Your task to perform on an android device: Go to Reddit.com Image 0: 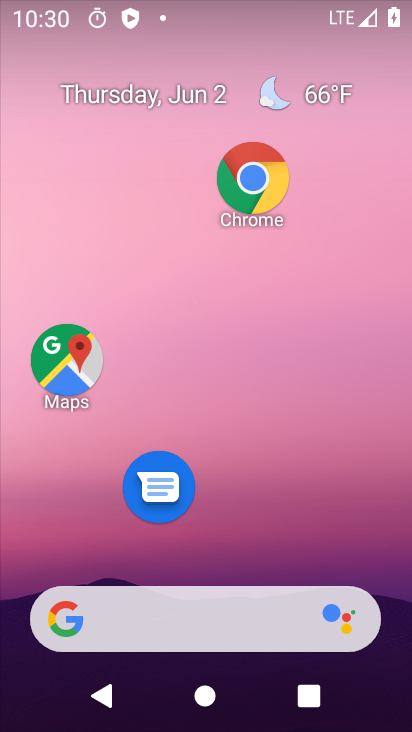
Step 0: click (256, 184)
Your task to perform on an android device: Go to Reddit.com Image 1: 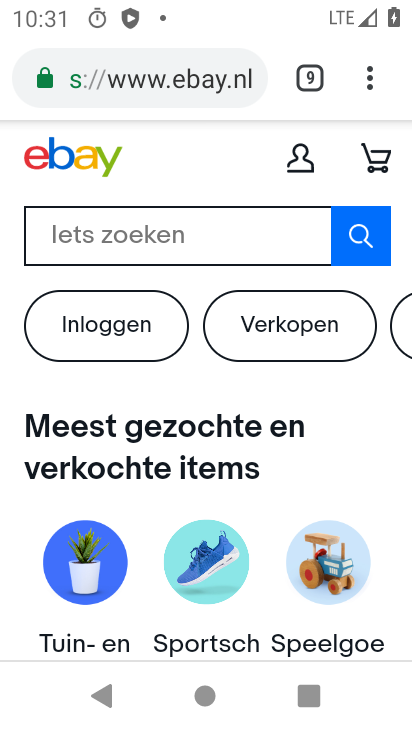
Step 1: click (369, 86)
Your task to perform on an android device: Go to Reddit.com Image 2: 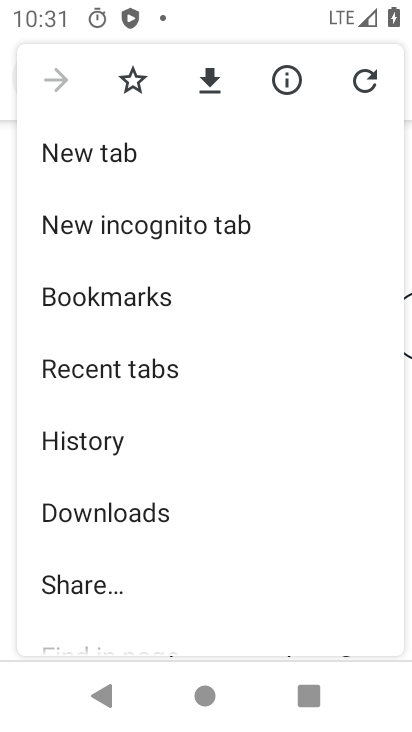
Step 2: click (88, 151)
Your task to perform on an android device: Go to Reddit.com Image 3: 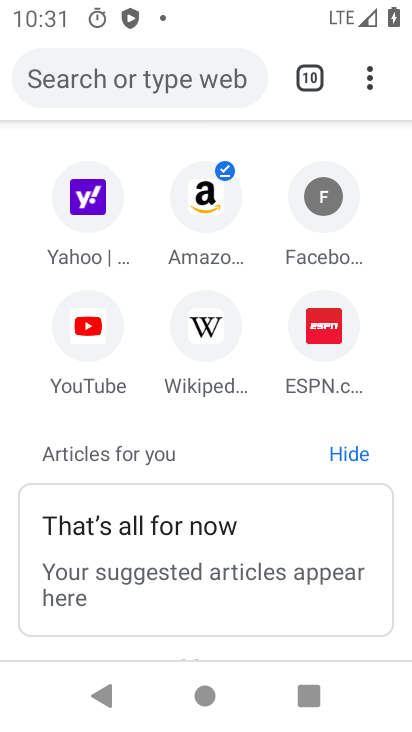
Step 3: click (179, 79)
Your task to perform on an android device: Go to Reddit.com Image 4: 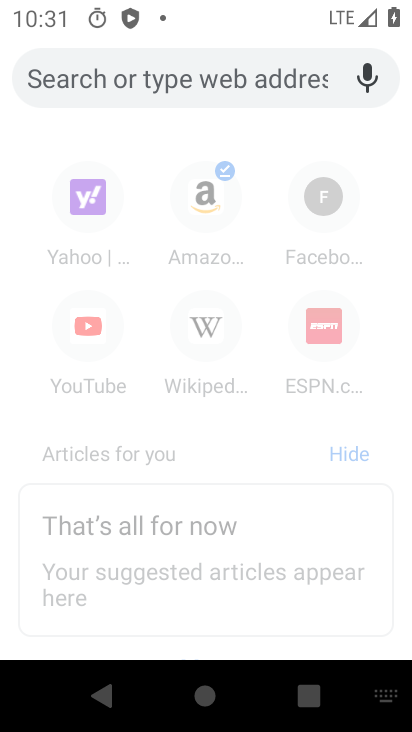
Step 4: type "Reddit.com"
Your task to perform on an android device: Go to Reddit.com Image 5: 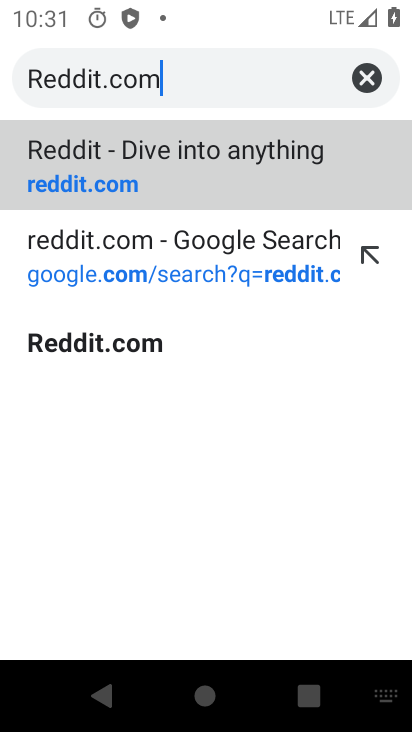
Step 5: click (195, 175)
Your task to perform on an android device: Go to Reddit.com Image 6: 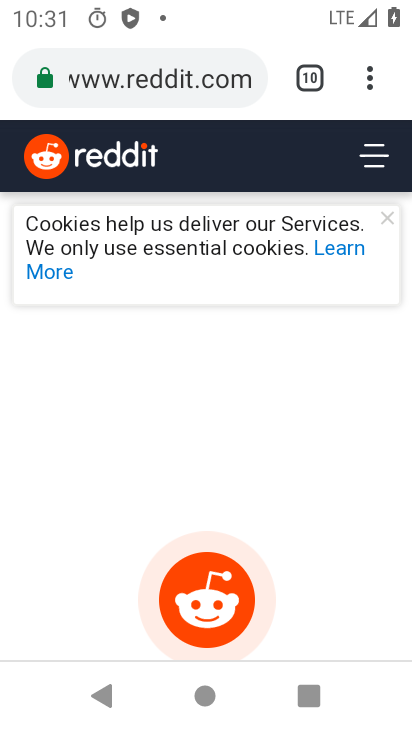
Step 6: task complete